Your task to perform on an android device: toggle javascript in the chrome app Image 0: 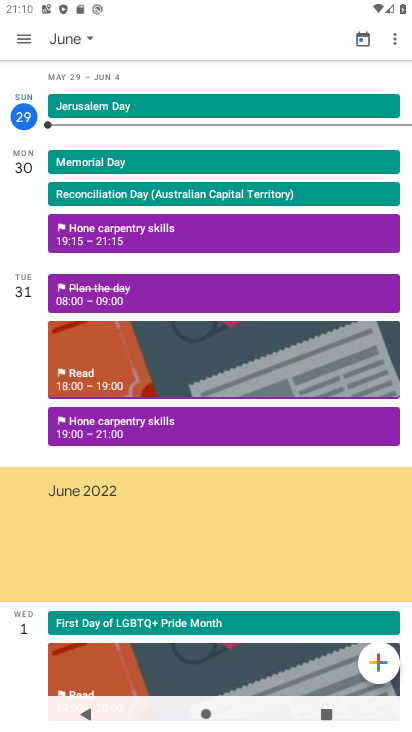
Step 0: press home button
Your task to perform on an android device: toggle javascript in the chrome app Image 1: 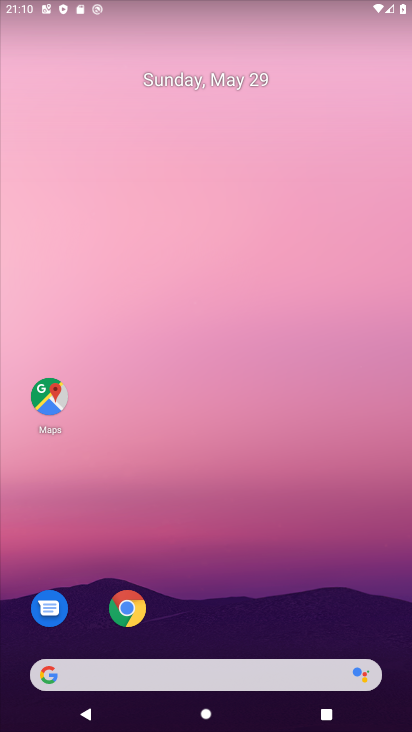
Step 1: drag from (365, 602) to (369, 173)
Your task to perform on an android device: toggle javascript in the chrome app Image 2: 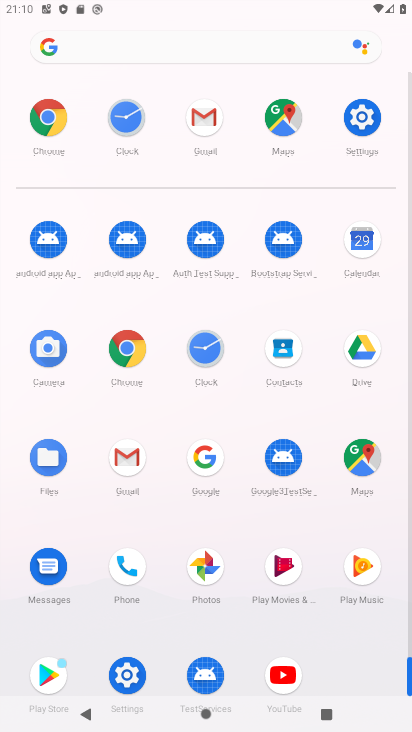
Step 2: click (129, 359)
Your task to perform on an android device: toggle javascript in the chrome app Image 3: 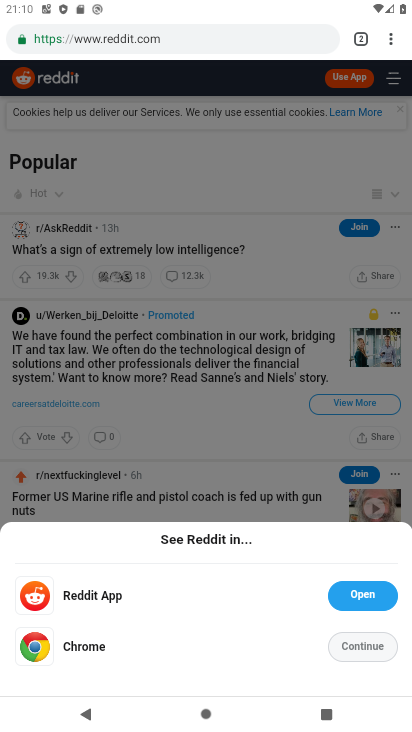
Step 3: click (393, 41)
Your task to perform on an android device: toggle javascript in the chrome app Image 4: 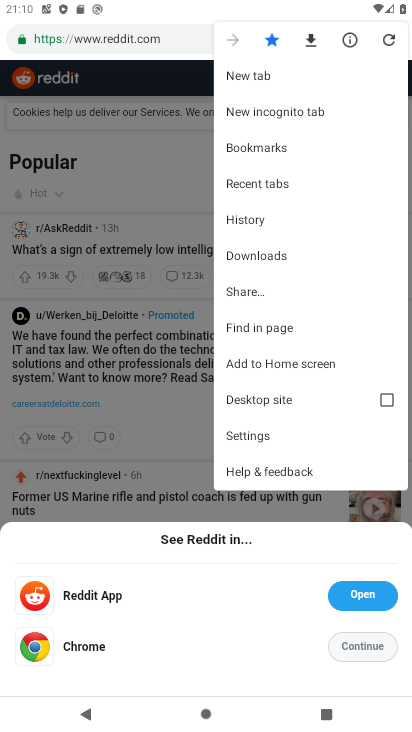
Step 4: click (271, 443)
Your task to perform on an android device: toggle javascript in the chrome app Image 5: 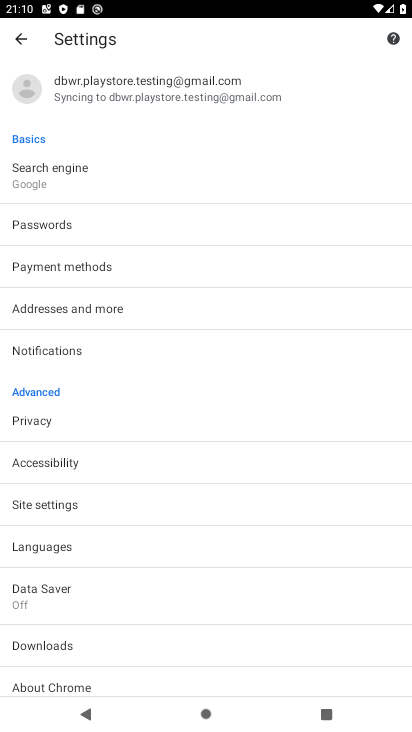
Step 5: click (231, 498)
Your task to perform on an android device: toggle javascript in the chrome app Image 6: 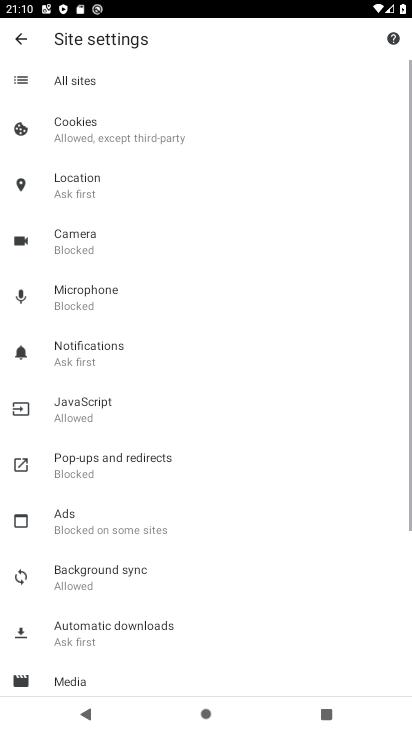
Step 6: drag from (221, 526) to (218, 441)
Your task to perform on an android device: toggle javascript in the chrome app Image 7: 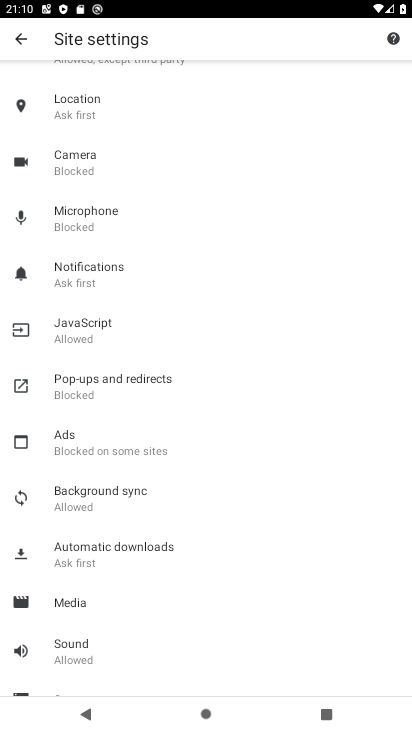
Step 7: drag from (292, 574) to (297, 475)
Your task to perform on an android device: toggle javascript in the chrome app Image 8: 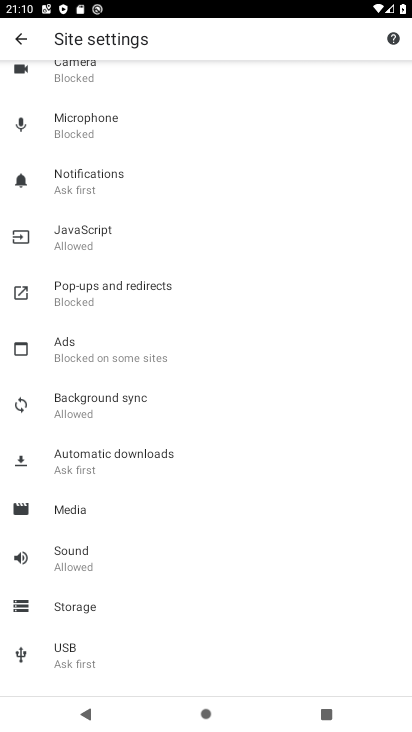
Step 8: drag from (301, 604) to (323, 481)
Your task to perform on an android device: toggle javascript in the chrome app Image 9: 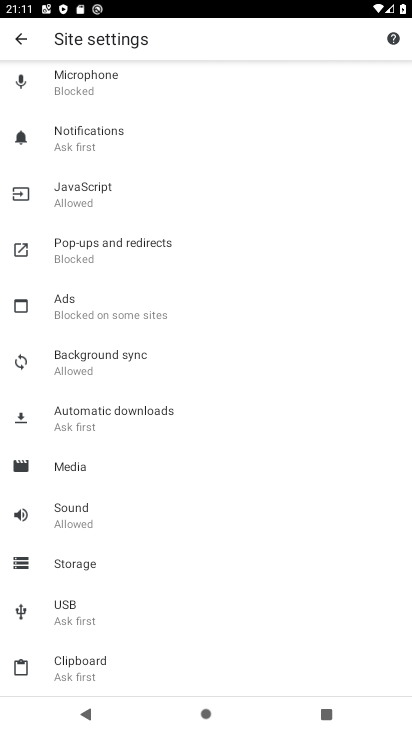
Step 9: drag from (323, 347) to (316, 407)
Your task to perform on an android device: toggle javascript in the chrome app Image 10: 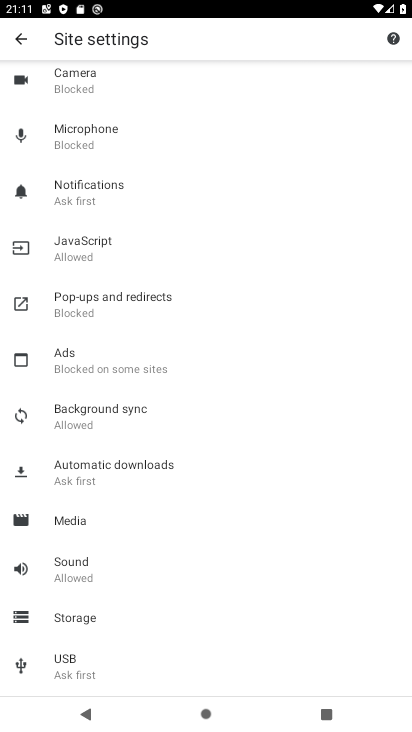
Step 10: drag from (328, 304) to (320, 376)
Your task to perform on an android device: toggle javascript in the chrome app Image 11: 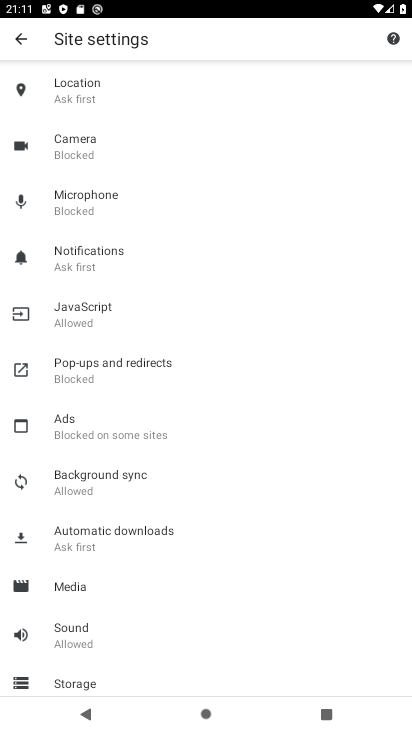
Step 11: drag from (320, 309) to (324, 376)
Your task to perform on an android device: toggle javascript in the chrome app Image 12: 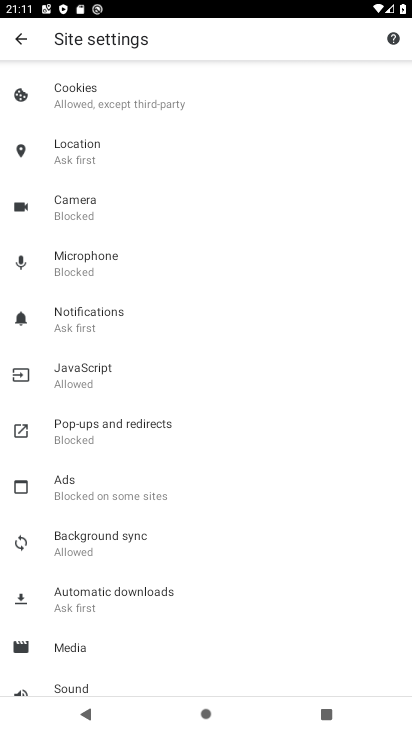
Step 12: drag from (321, 300) to (319, 412)
Your task to perform on an android device: toggle javascript in the chrome app Image 13: 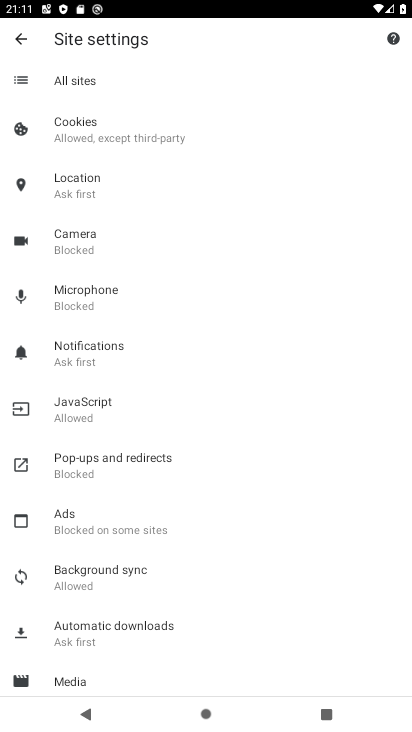
Step 13: click (153, 423)
Your task to perform on an android device: toggle javascript in the chrome app Image 14: 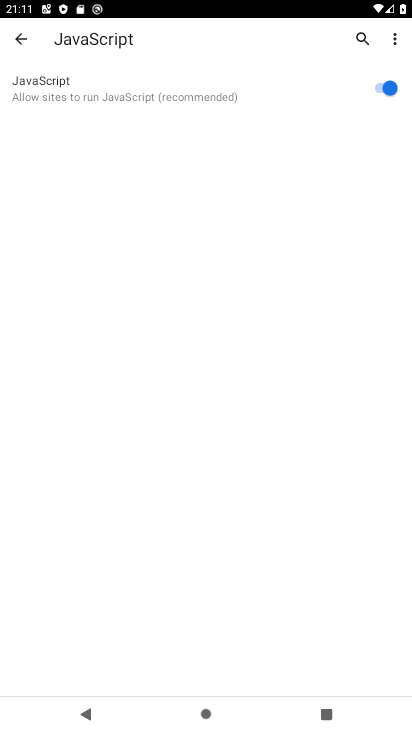
Step 14: click (391, 84)
Your task to perform on an android device: toggle javascript in the chrome app Image 15: 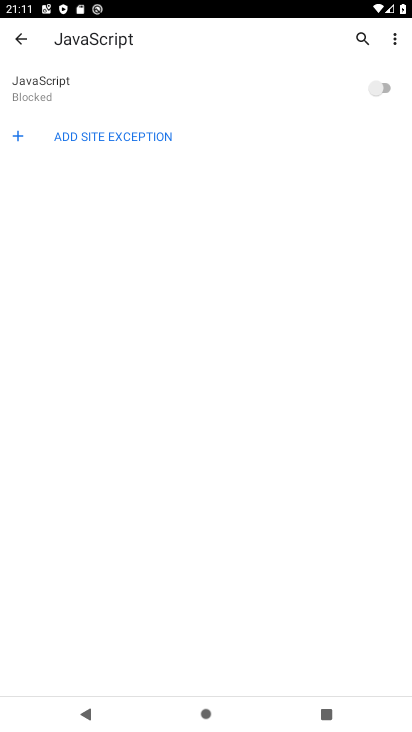
Step 15: task complete